Your task to perform on an android device: Open Google Chrome Image 0: 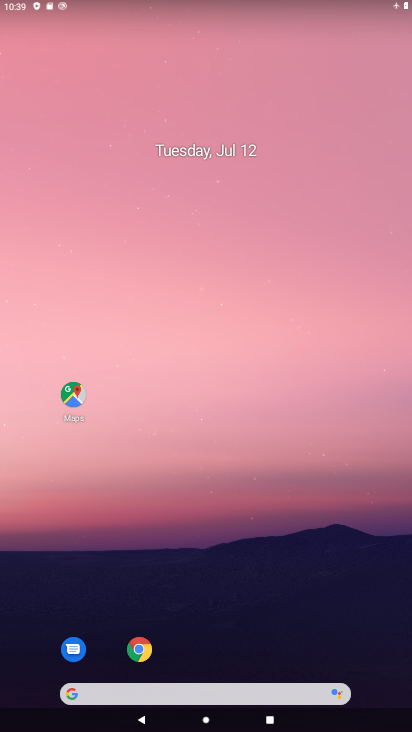
Step 0: click (136, 650)
Your task to perform on an android device: Open Google Chrome Image 1: 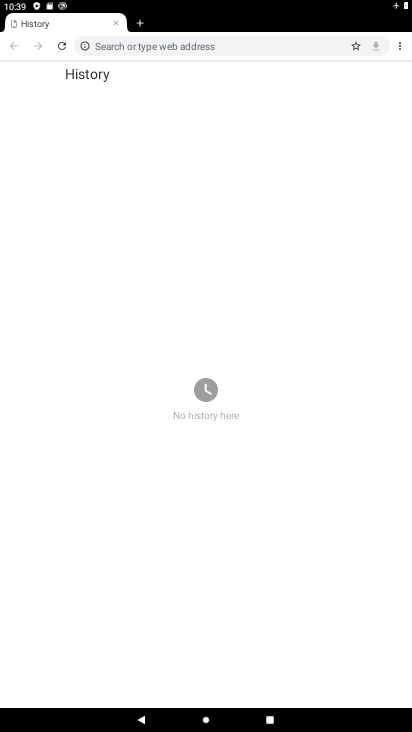
Step 1: task complete